Your task to perform on an android device: install app "Speedtest by Ookla" Image 0: 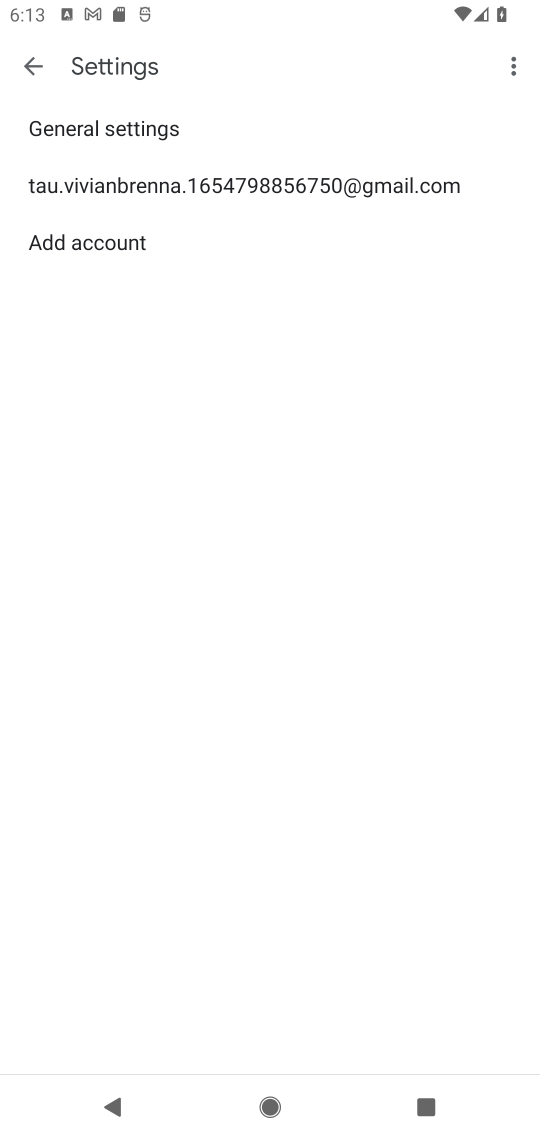
Step 0: press back button
Your task to perform on an android device: install app "Speedtest by Ookla" Image 1: 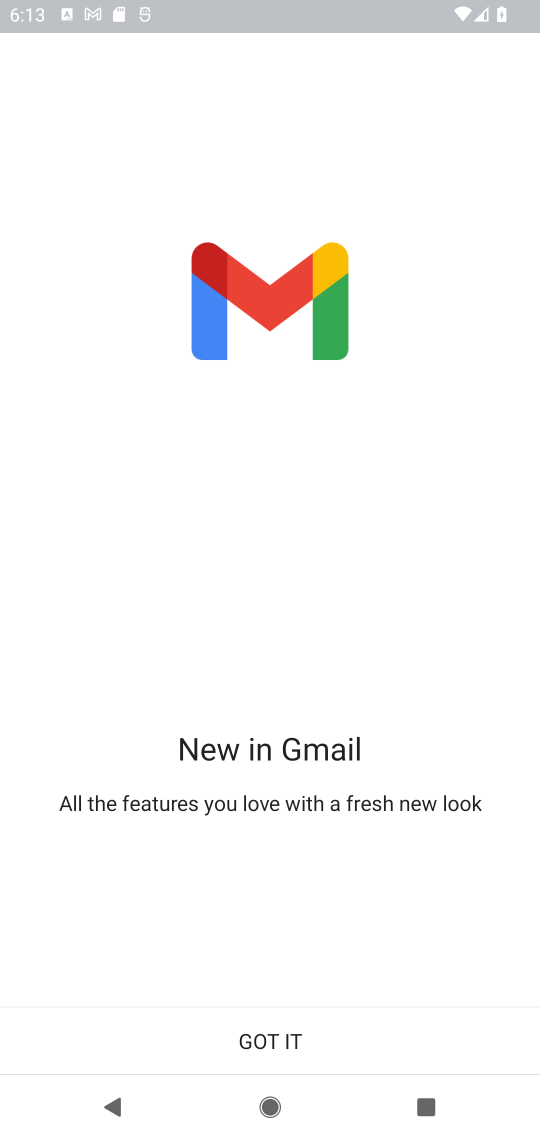
Step 1: press home button
Your task to perform on an android device: install app "Speedtest by Ookla" Image 2: 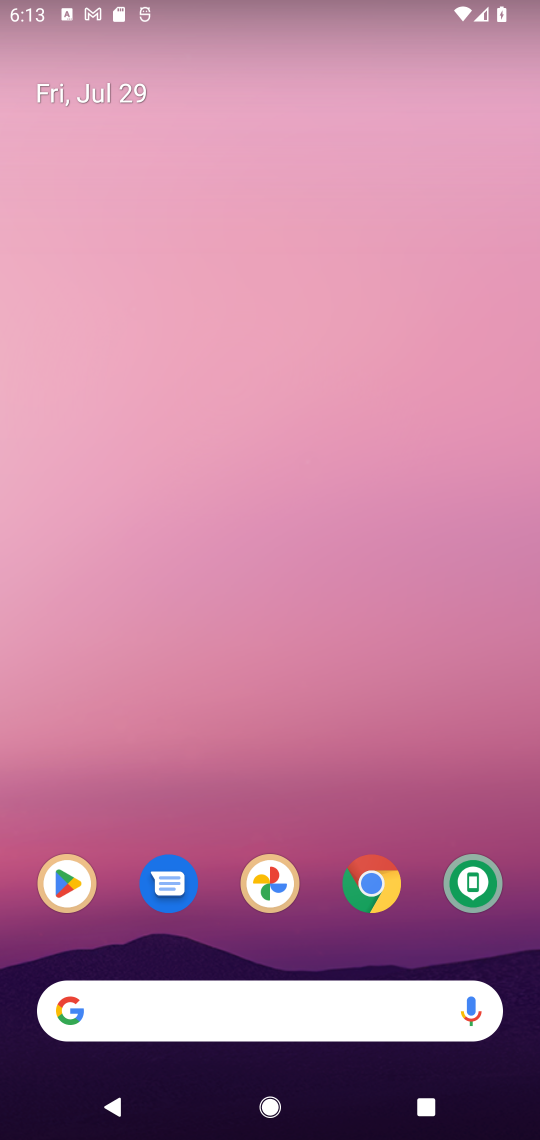
Step 2: click (53, 882)
Your task to perform on an android device: install app "Speedtest by Ookla" Image 3: 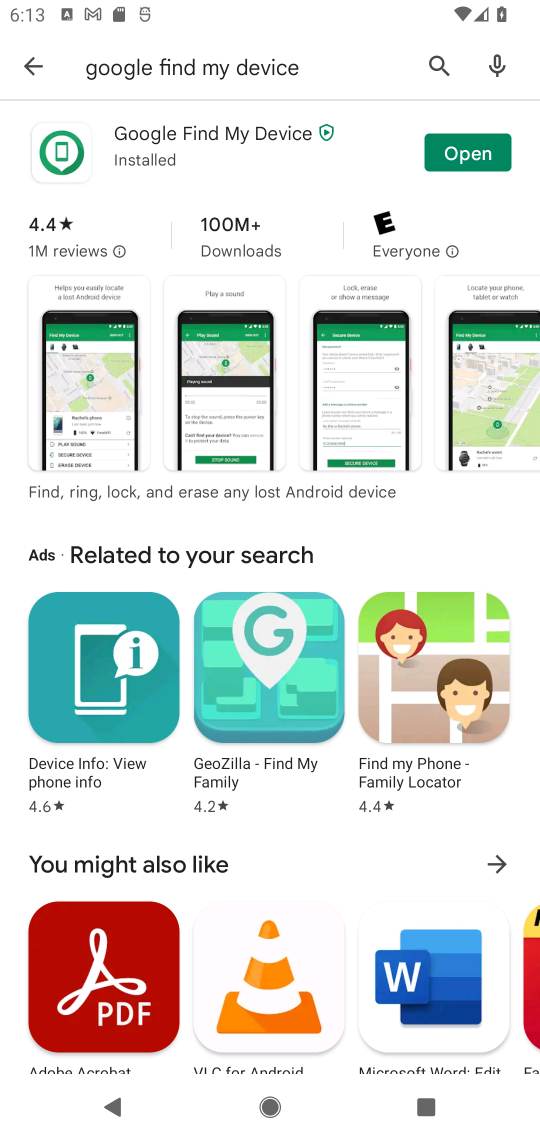
Step 3: click (432, 63)
Your task to perform on an android device: install app "Speedtest by Ookla" Image 4: 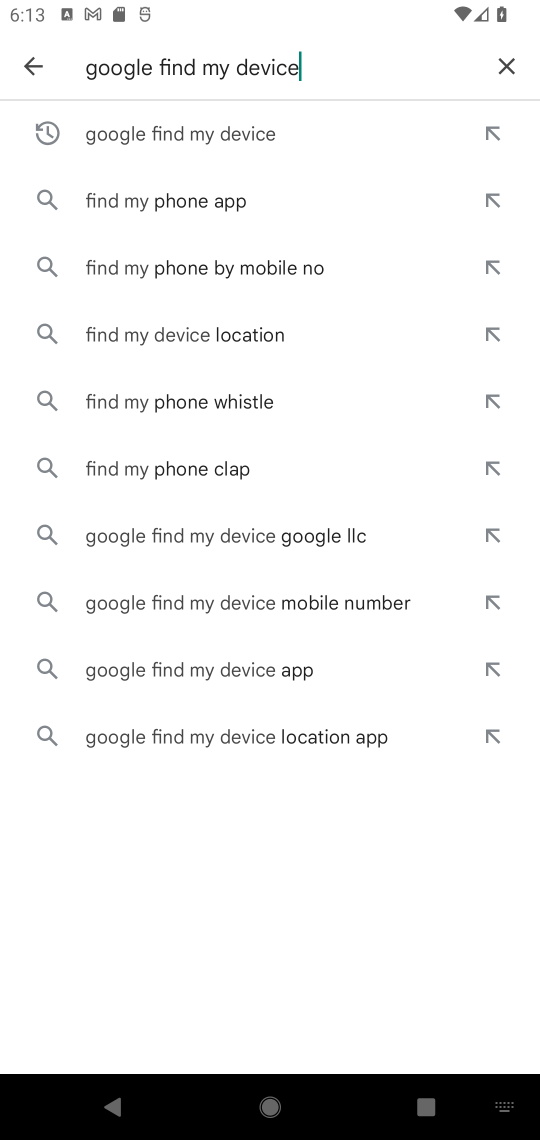
Step 4: click (505, 60)
Your task to perform on an android device: install app "Speedtest by Ookla" Image 5: 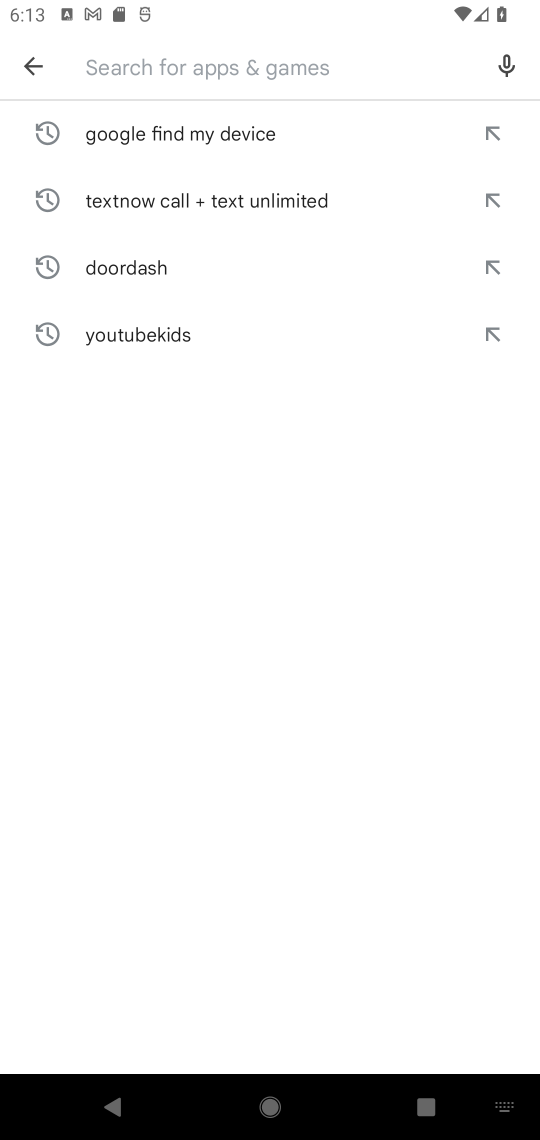
Step 5: click (321, 58)
Your task to perform on an android device: install app "Speedtest by Ookla" Image 6: 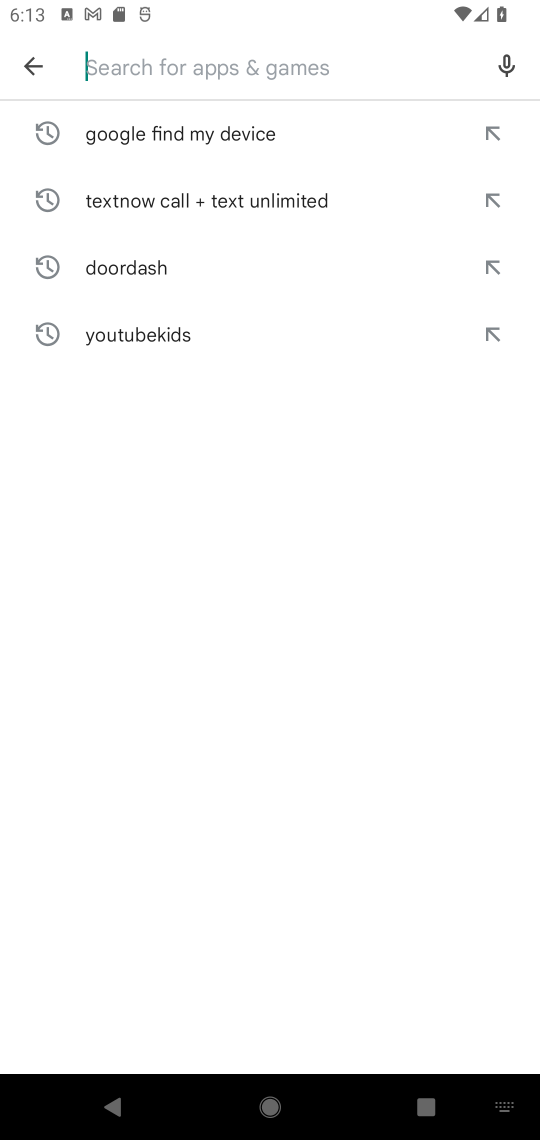
Step 6: type "speedtest ookla"
Your task to perform on an android device: install app "Speedtest by Ookla" Image 7: 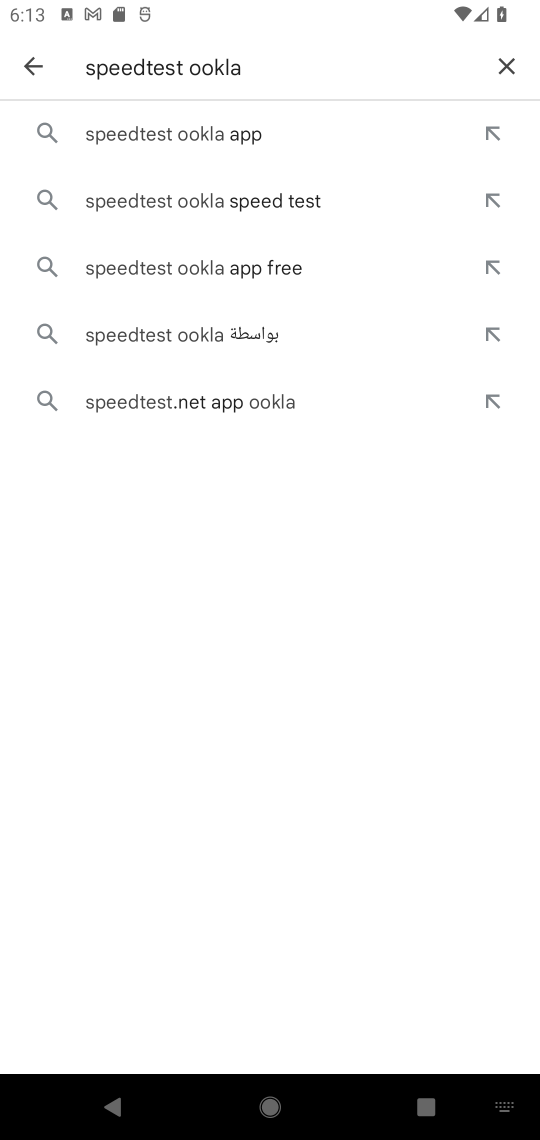
Step 7: click (276, 117)
Your task to perform on an android device: install app "Speedtest by Ookla" Image 8: 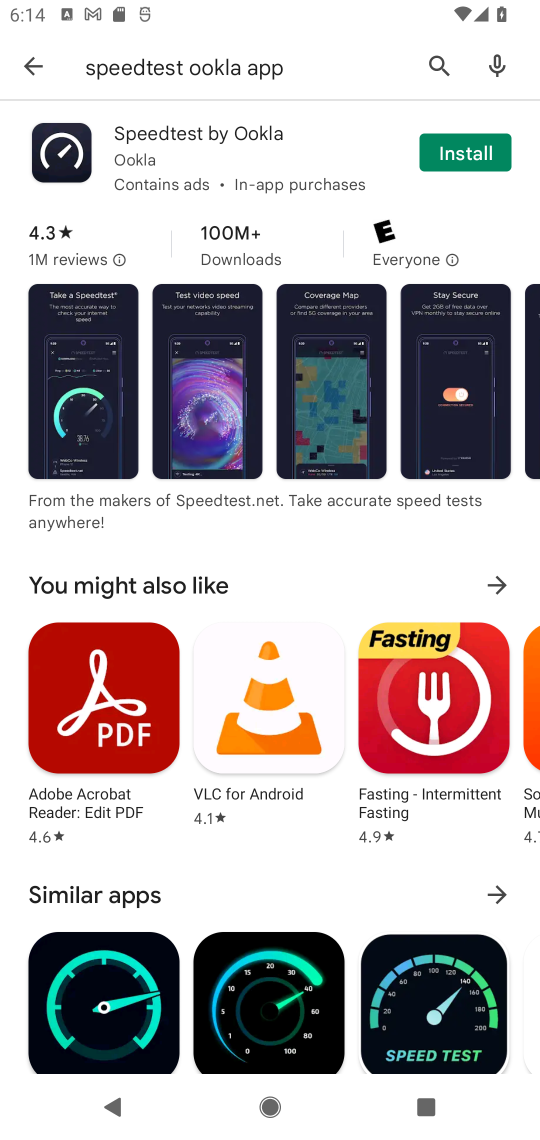
Step 8: click (469, 164)
Your task to perform on an android device: install app "Speedtest by Ookla" Image 9: 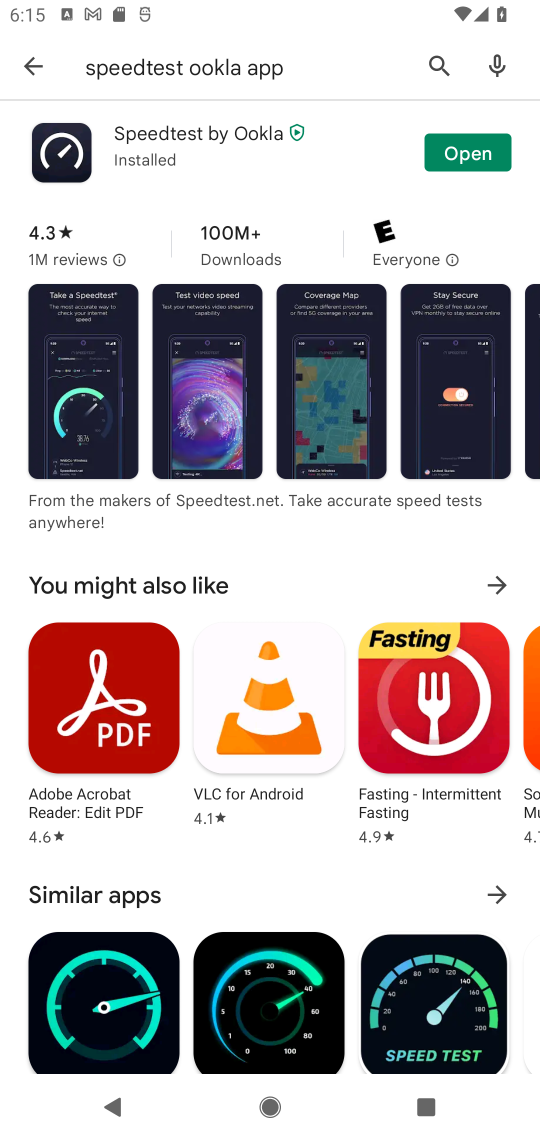
Step 9: task complete